Your task to perform on an android device: turn off location history Image 0: 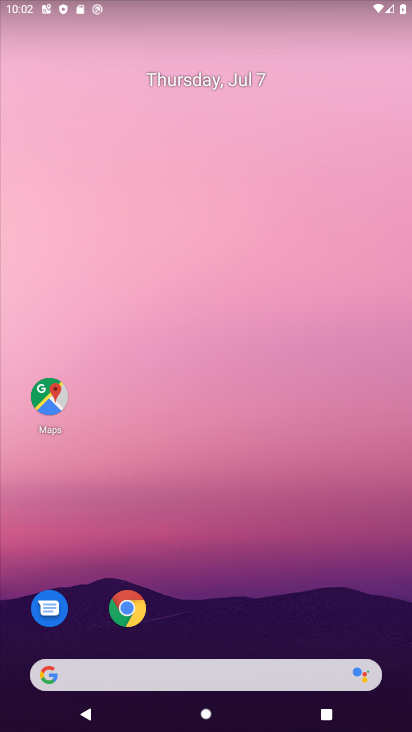
Step 0: drag from (229, 602) to (204, 153)
Your task to perform on an android device: turn off location history Image 1: 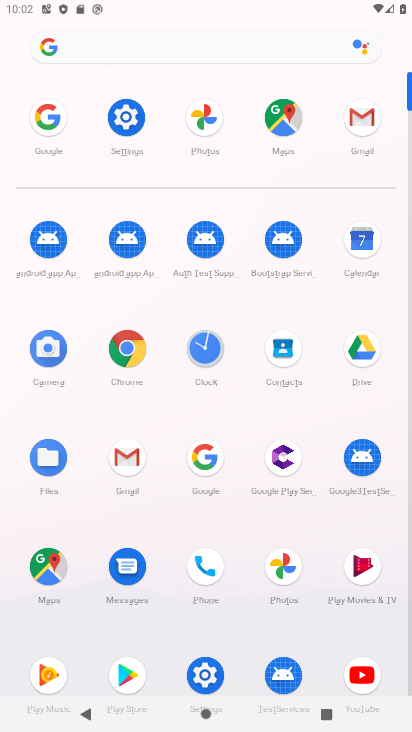
Step 1: click (122, 109)
Your task to perform on an android device: turn off location history Image 2: 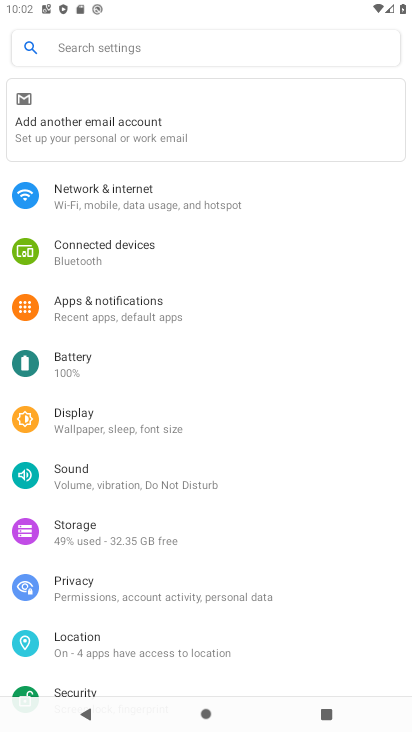
Step 2: click (137, 654)
Your task to perform on an android device: turn off location history Image 3: 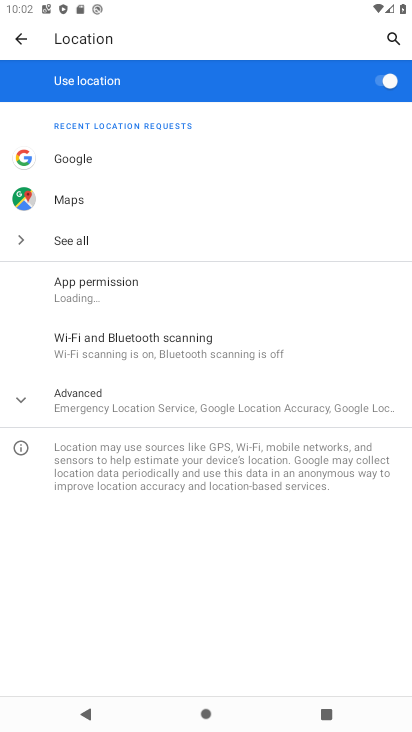
Step 3: click (105, 394)
Your task to perform on an android device: turn off location history Image 4: 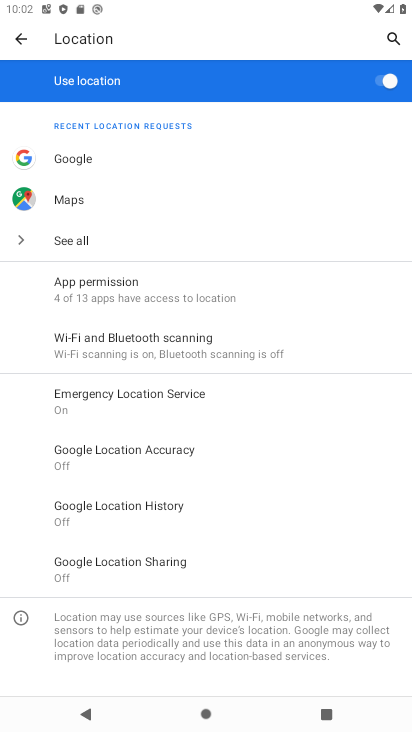
Step 4: click (147, 513)
Your task to perform on an android device: turn off location history Image 5: 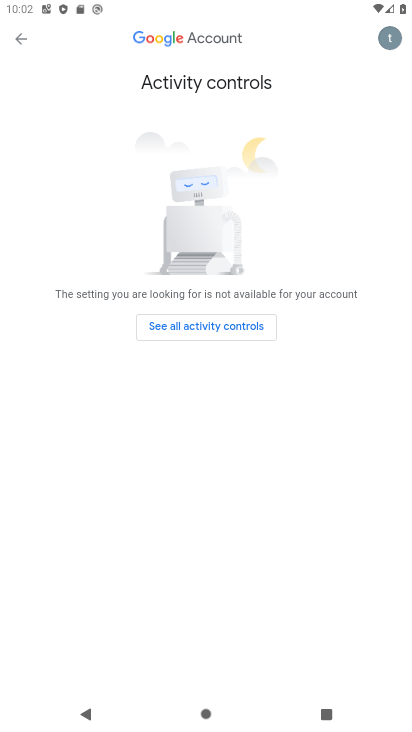
Step 5: task complete